Your task to perform on an android device: remove spam from my inbox in the gmail app Image 0: 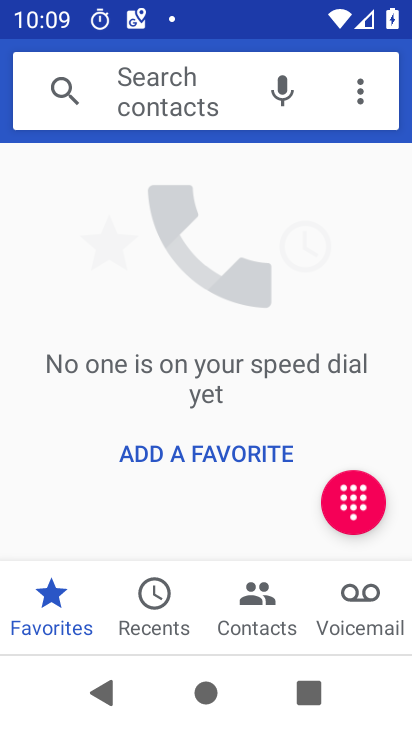
Step 0: press home button
Your task to perform on an android device: remove spam from my inbox in the gmail app Image 1: 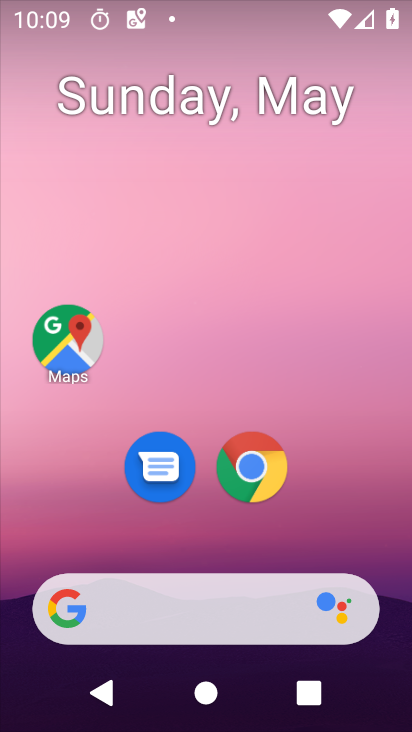
Step 1: drag from (219, 455) to (224, 178)
Your task to perform on an android device: remove spam from my inbox in the gmail app Image 2: 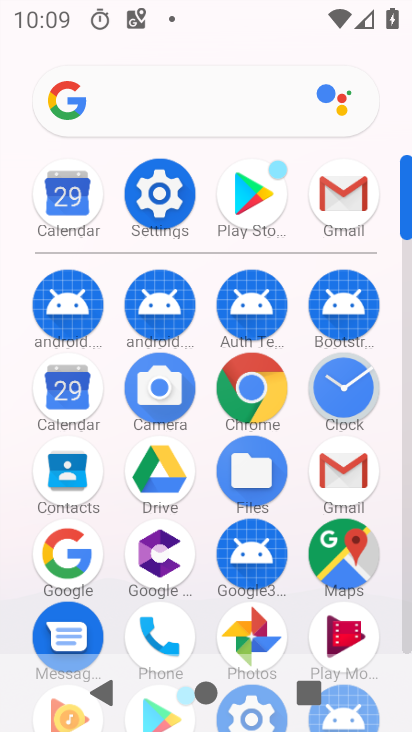
Step 2: click (335, 199)
Your task to perform on an android device: remove spam from my inbox in the gmail app Image 3: 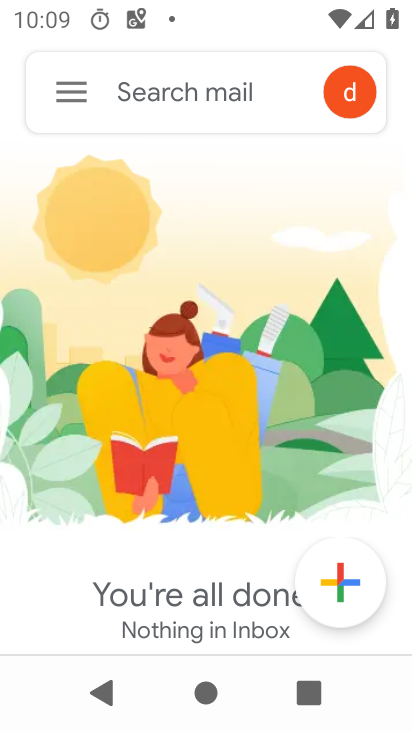
Step 3: click (77, 78)
Your task to perform on an android device: remove spam from my inbox in the gmail app Image 4: 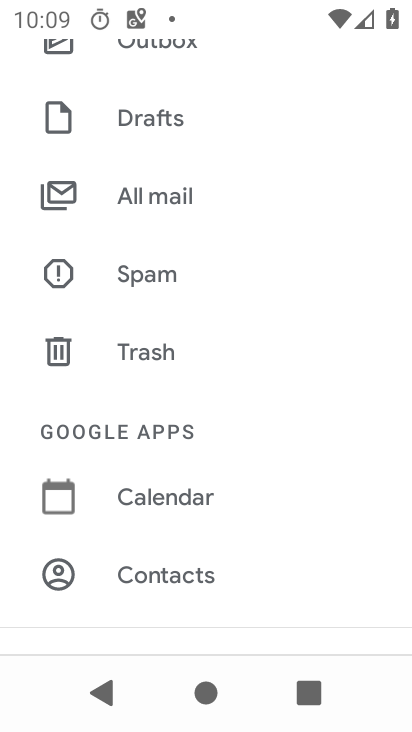
Step 4: click (131, 280)
Your task to perform on an android device: remove spam from my inbox in the gmail app Image 5: 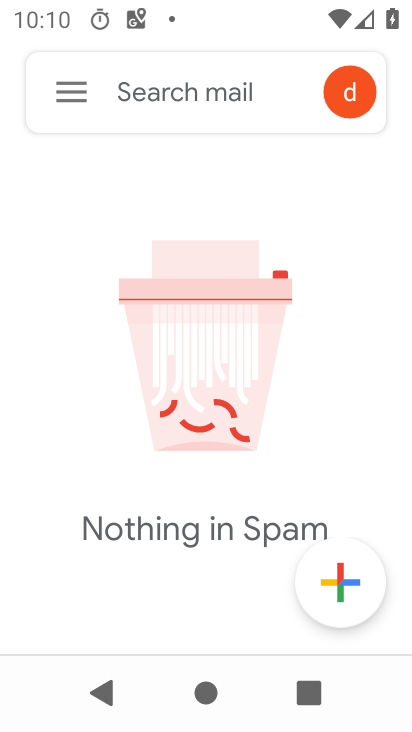
Step 5: task complete